Your task to perform on an android device: Search for dell alienware on costco, select the first entry, and add it to the cart. Image 0: 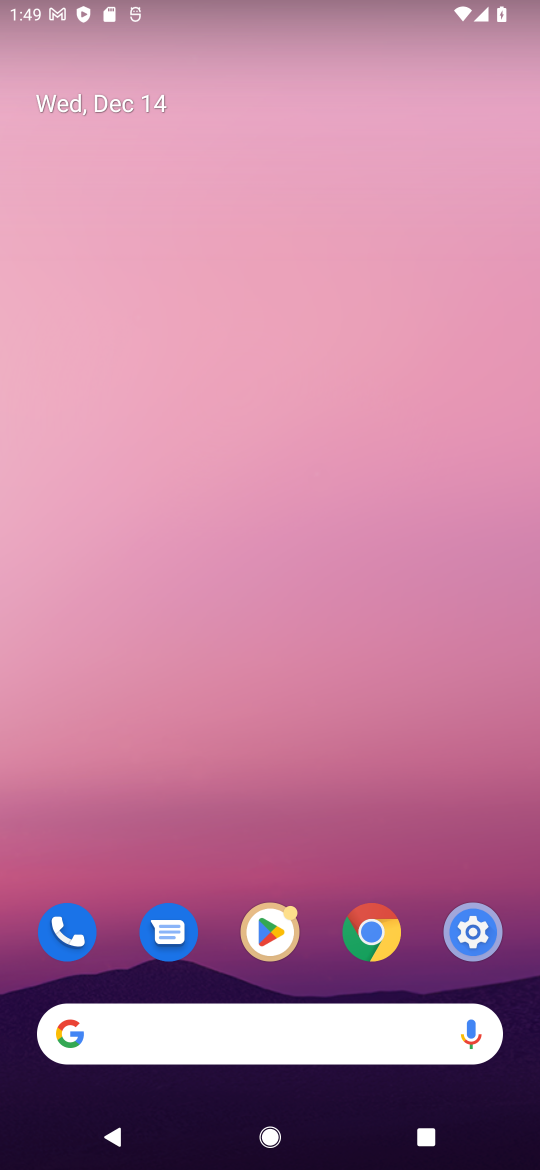
Step 0: drag from (269, 641) to (312, 166)
Your task to perform on an android device: Search for dell alienware on costco, select the first entry, and add it to the cart. Image 1: 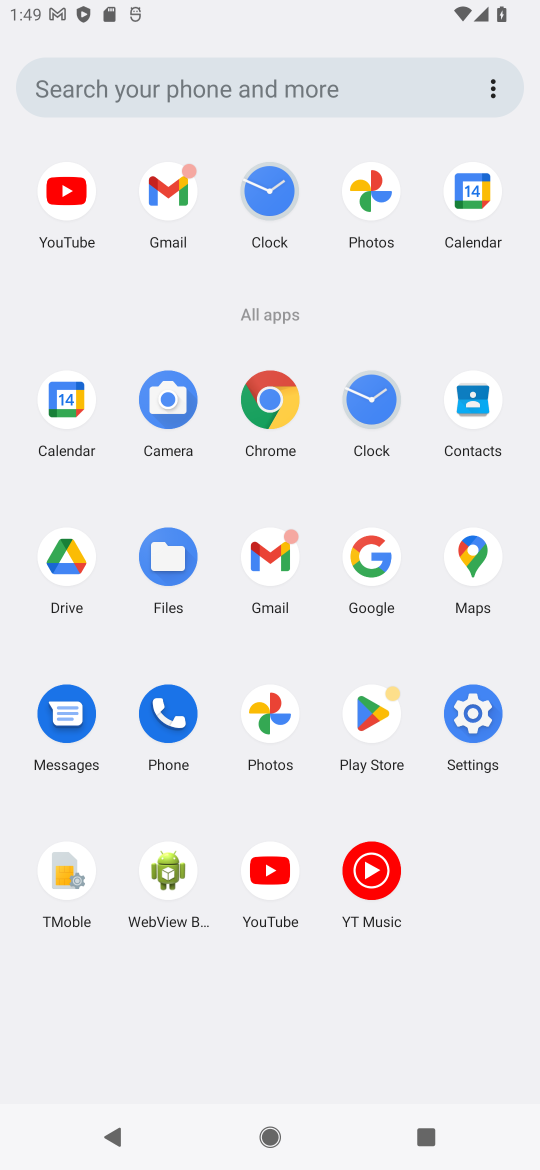
Step 1: click (391, 565)
Your task to perform on an android device: Search for dell alienware on costco, select the first entry, and add it to the cart. Image 2: 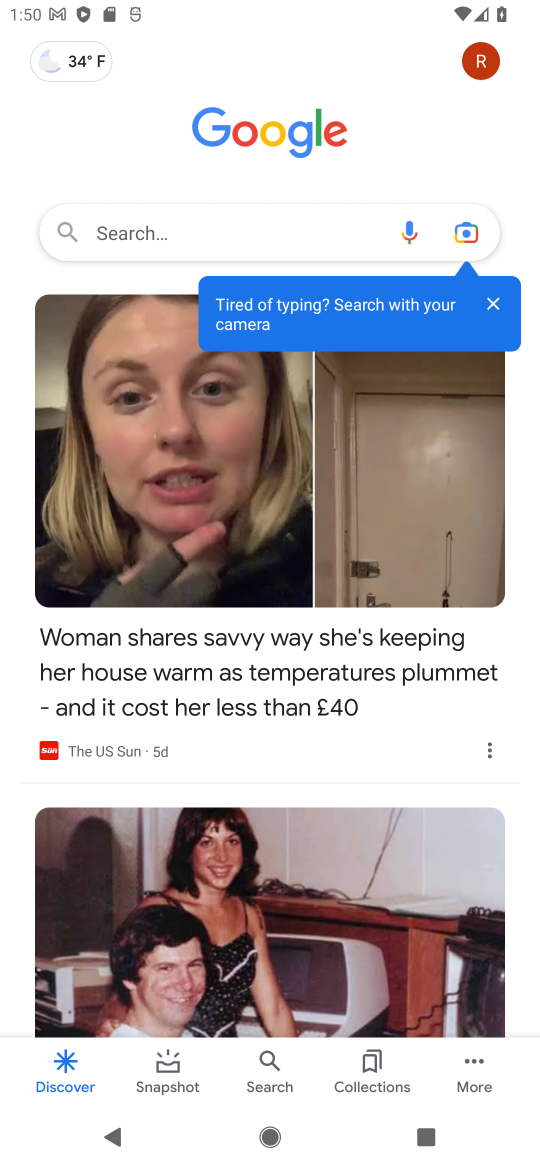
Step 2: click (234, 245)
Your task to perform on an android device: Search for dell alienware on costco, select the first entry, and add it to the cart. Image 3: 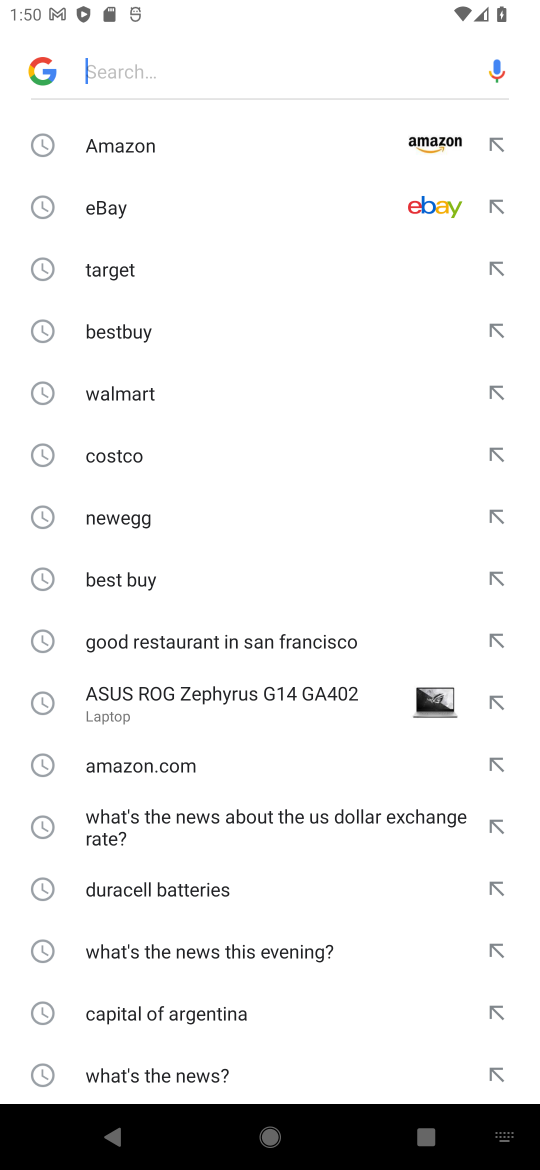
Step 3: type "costco"
Your task to perform on an android device: Search for dell alienware on costco, select the first entry, and add it to the cart. Image 4: 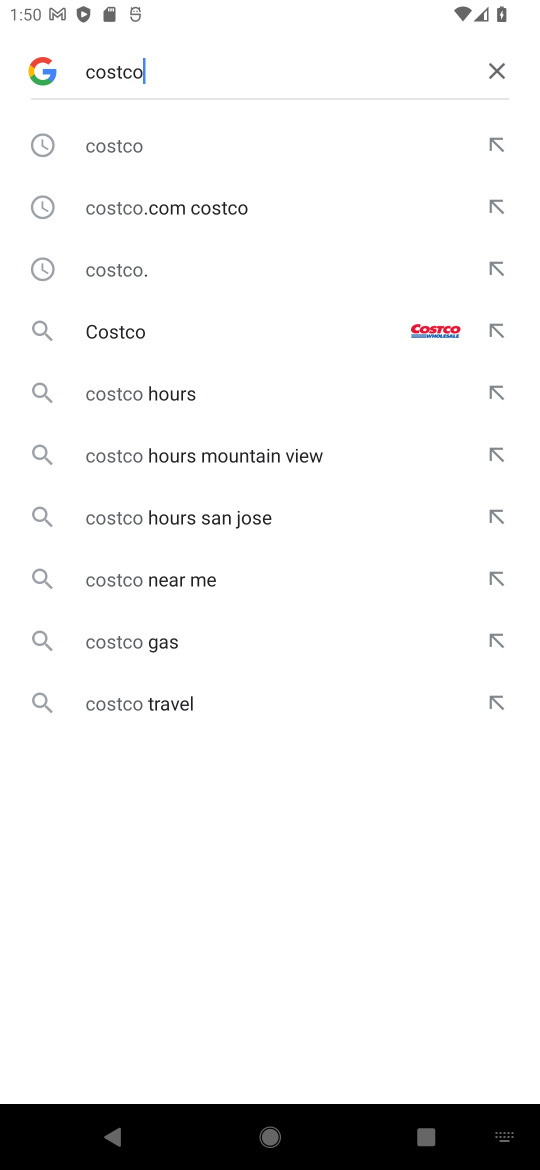
Step 4: click (137, 338)
Your task to perform on an android device: Search for dell alienware on costco, select the first entry, and add it to the cart. Image 5: 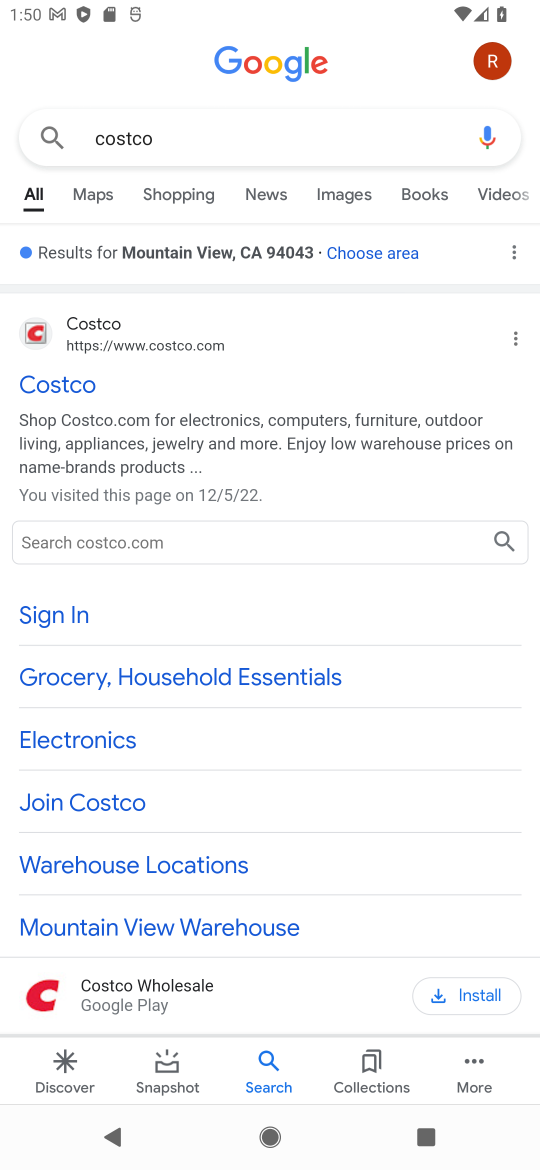
Step 5: click (86, 319)
Your task to perform on an android device: Search for dell alienware on costco, select the first entry, and add it to the cart. Image 6: 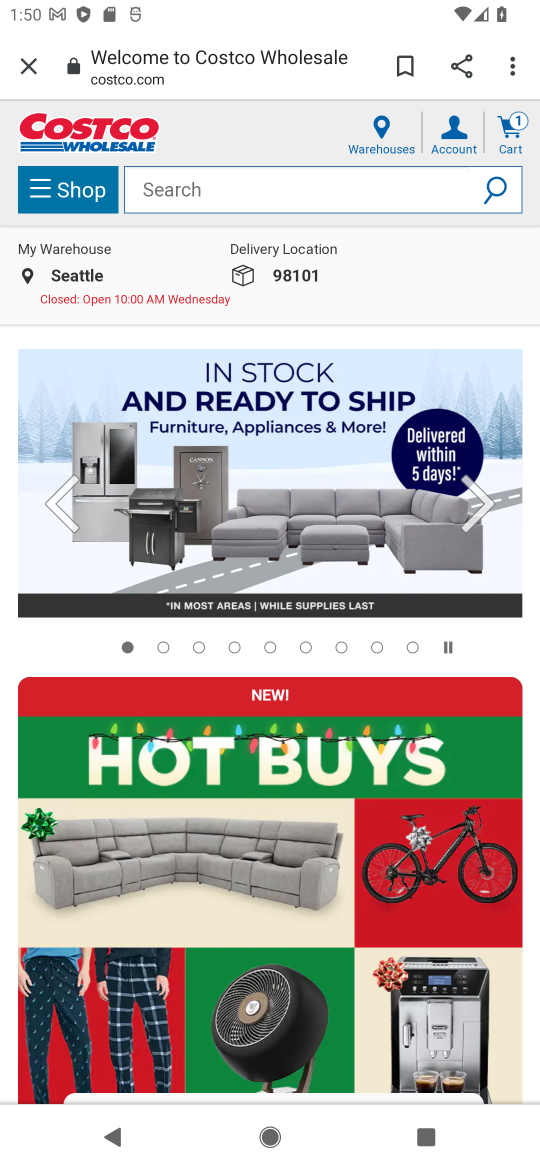
Step 6: click (512, 121)
Your task to perform on an android device: Search for dell alienware on costco, select the first entry, and add it to the cart. Image 7: 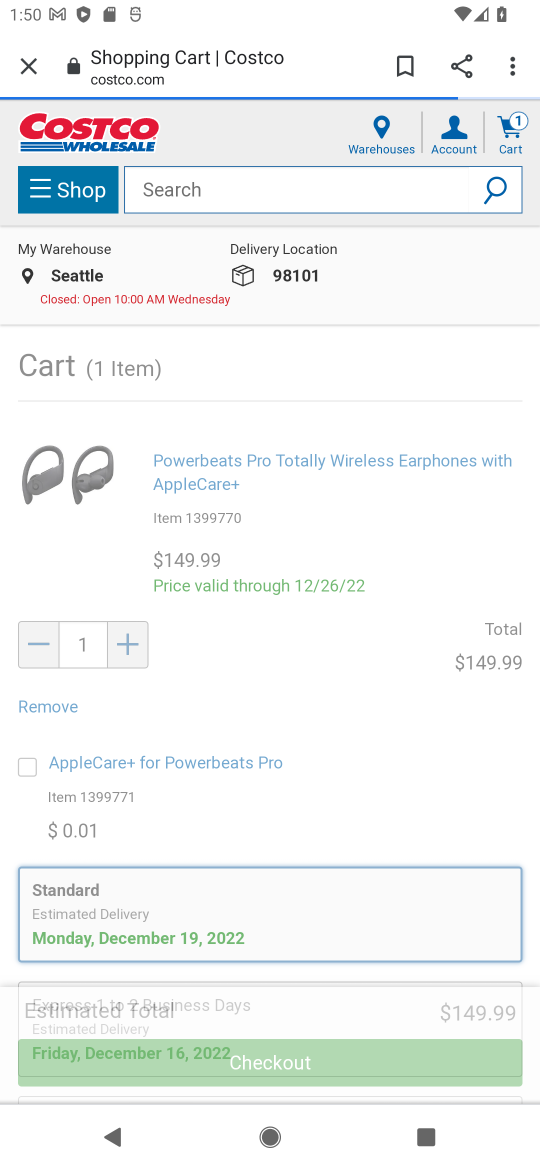
Step 7: click (378, 188)
Your task to perform on an android device: Search for dell alienware on costco, select the first entry, and add it to the cart. Image 8: 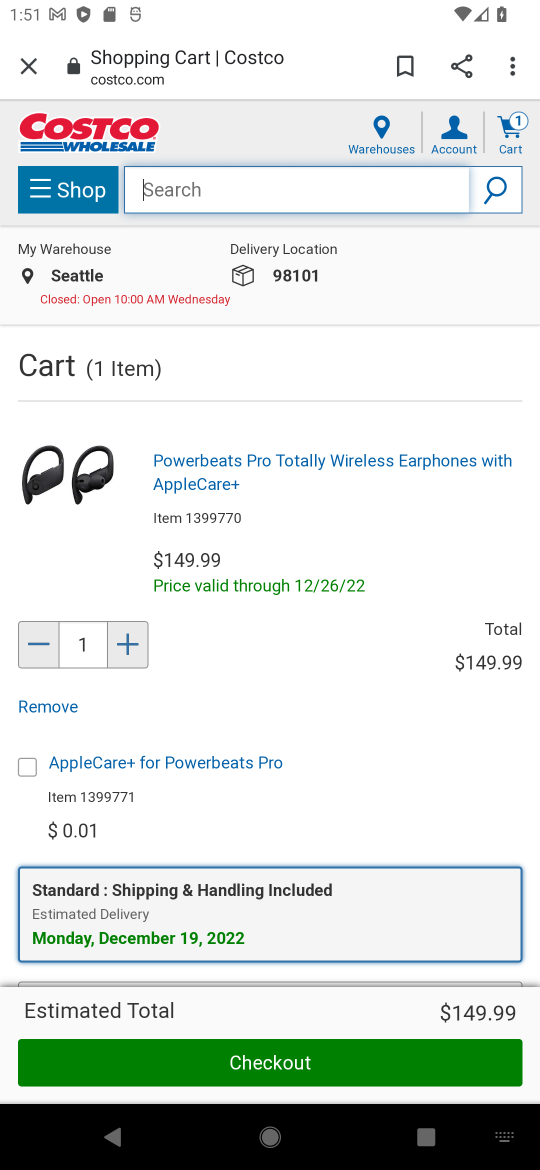
Step 8: type "dell alienware"
Your task to perform on an android device: Search for dell alienware on costco, select the first entry, and add it to the cart. Image 9: 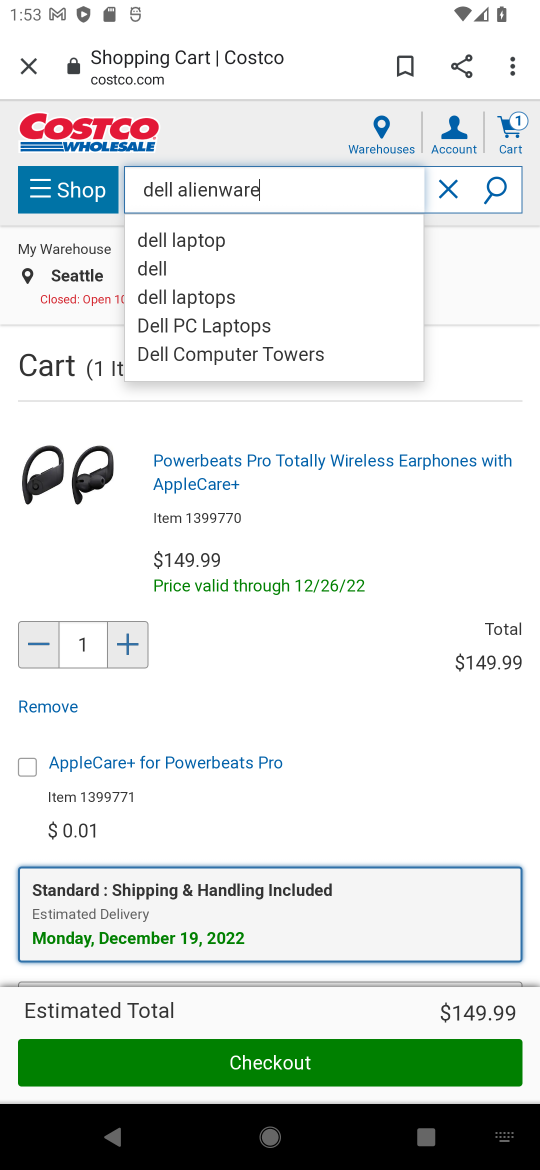
Step 9: click (500, 183)
Your task to perform on an android device: Search for dell alienware on costco, select the first entry, and add it to the cart. Image 10: 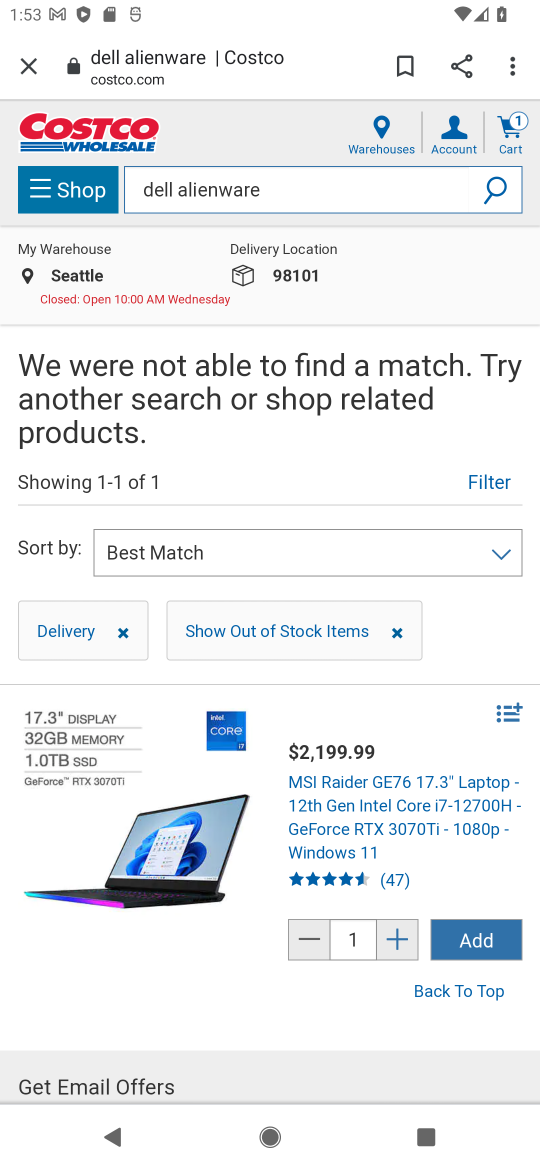
Step 10: drag from (290, 873) to (289, 604)
Your task to perform on an android device: Search for dell alienware on costco, select the first entry, and add it to the cart. Image 11: 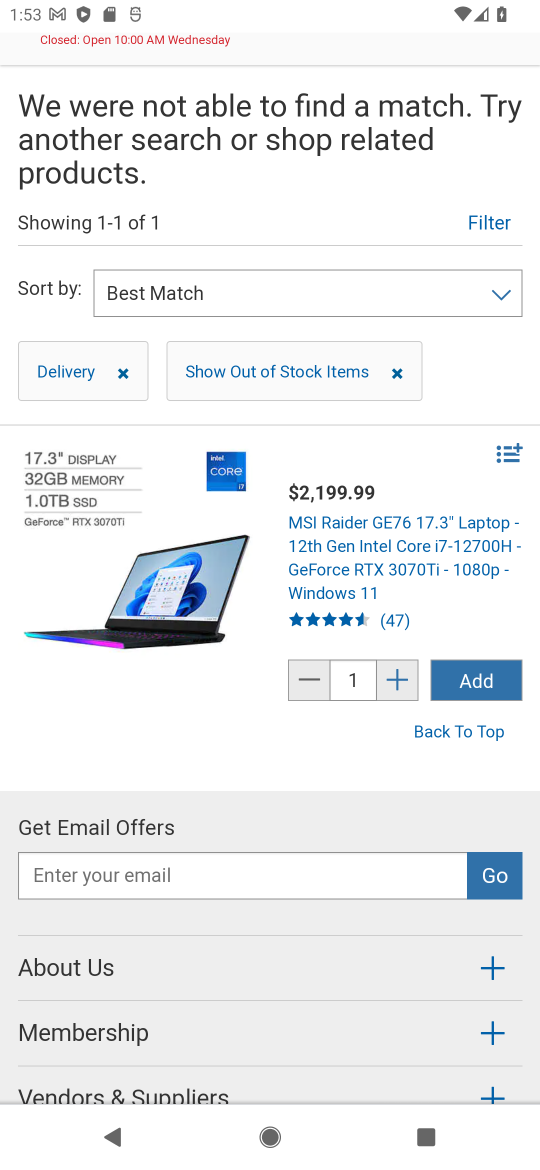
Step 11: click (479, 693)
Your task to perform on an android device: Search for dell alienware on costco, select the first entry, and add it to the cart. Image 12: 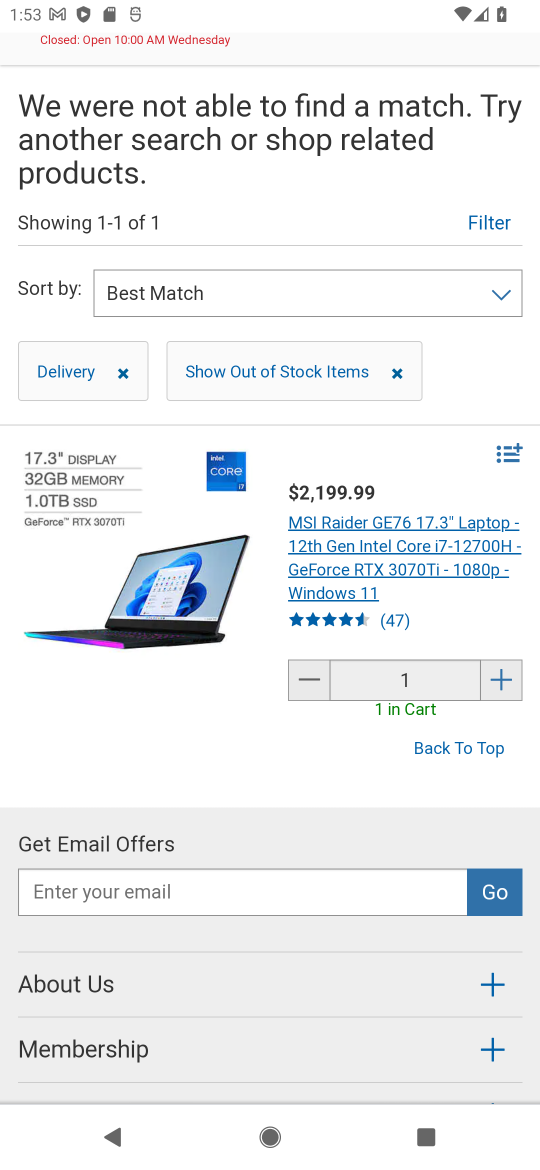
Step 12: task complete